Your task to perform on an android device: Go to sound settings Image 0: 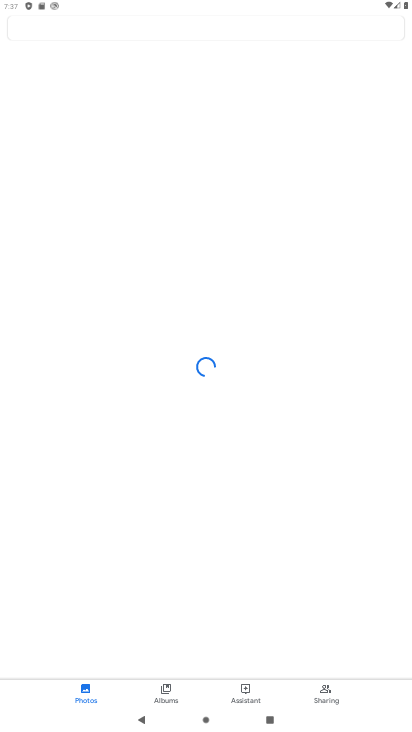
Step 0: press home button
Your task to perform on an android device: Go to sound settings Image 1: 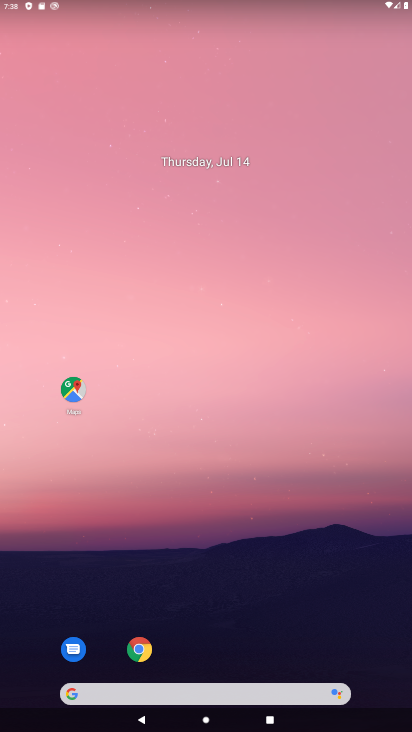
Step 1: drag from (278, 650) to (360, 125)
Your task to perform on an android device: Go to sound settings Image 2: 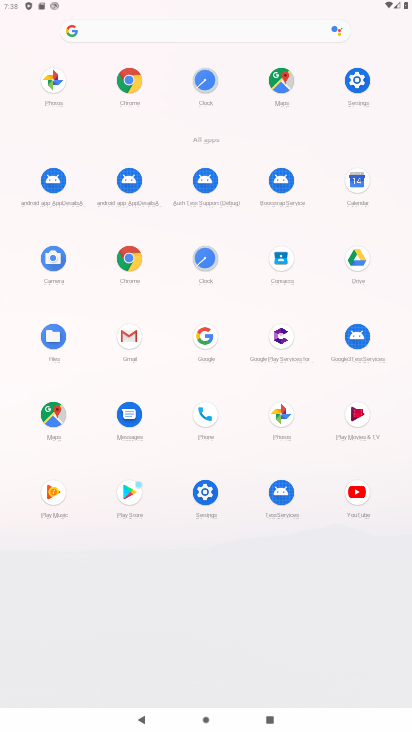
Step 2: click (347, 86)
Your task to perform on an android device: Go to sound settings Image 3: 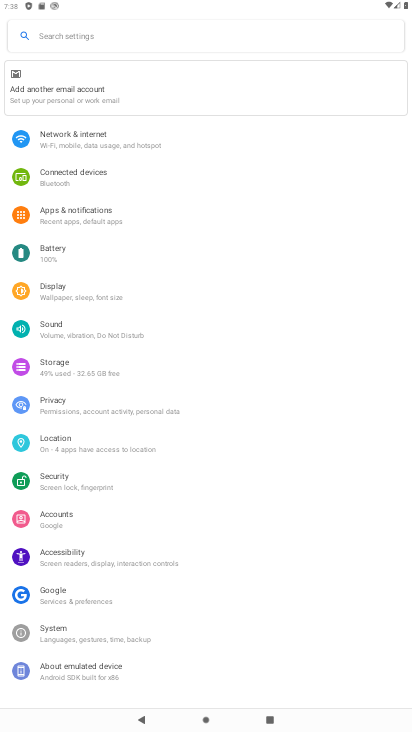
Step 3: click (82, 328)
Your task to perform on an android device: Go to sound settings Image 4: 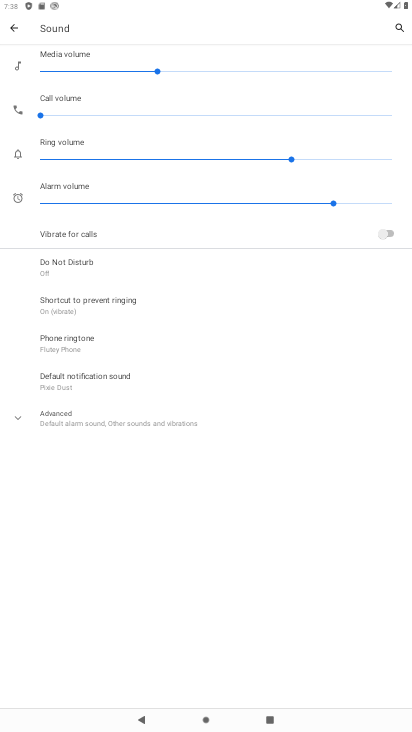
Step 4: task complete